Your task to perform on an android device: open the mobile data screen to see how much data has been used Image 0: 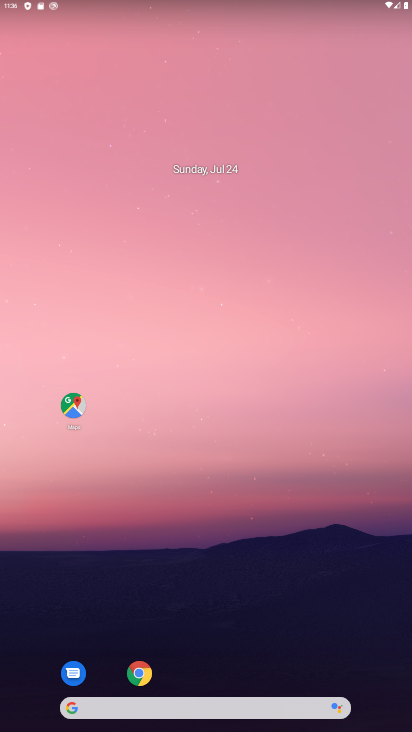
Step 0: drag from (247, 729) to (189, 3)
Your task to perform on an android device: open the mobile data screen to see how much data has been used Image 1: 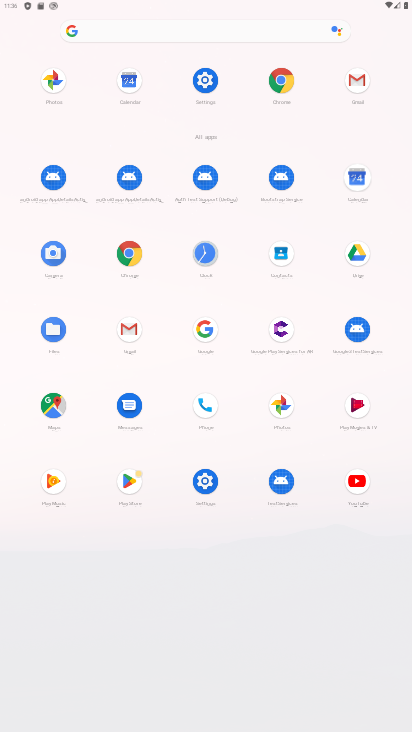
Step 1: click (207, 81)
Your task to perform on an android device: open the mobile data screen to see how much data has been used Image 2: 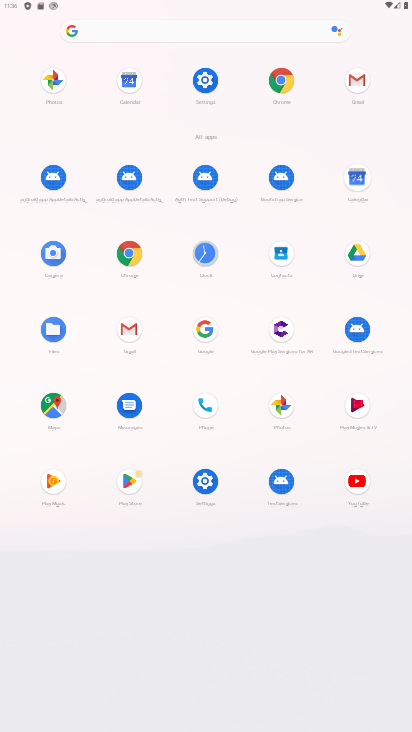
Step 2: click (207, 81)
Your task to perform on an android device: open the mobile data screen to see how much data has been used Image 3: 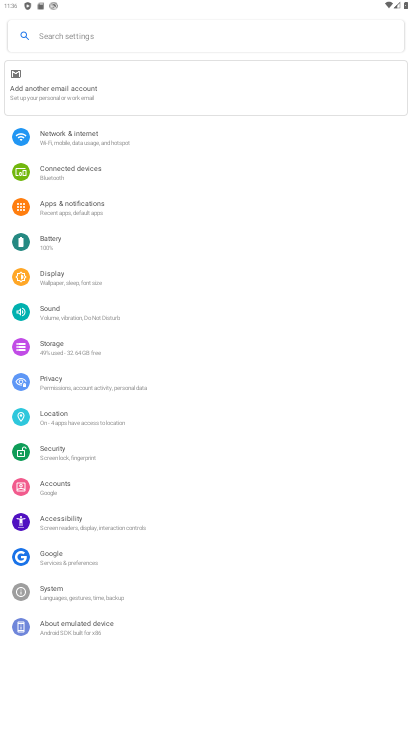
Step 3: click (159, 137)
Your task to perform on an android device: open the mobile data screen to see how much data has been used Image 4: 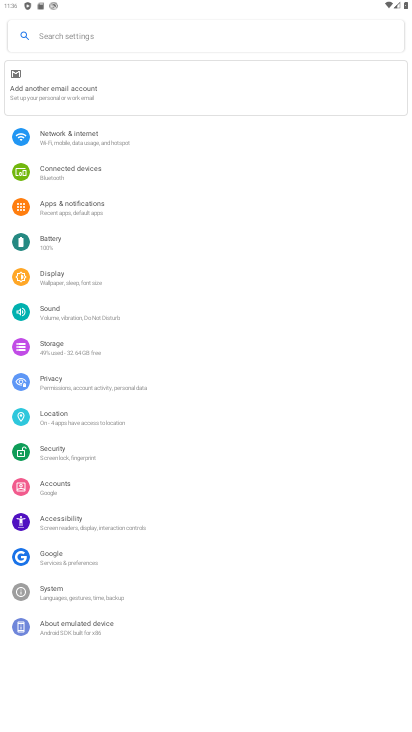
Step 4: click (159, 137)
Your task to perform on an android device: open the mobile data screen to see how much data has been used Image 5: 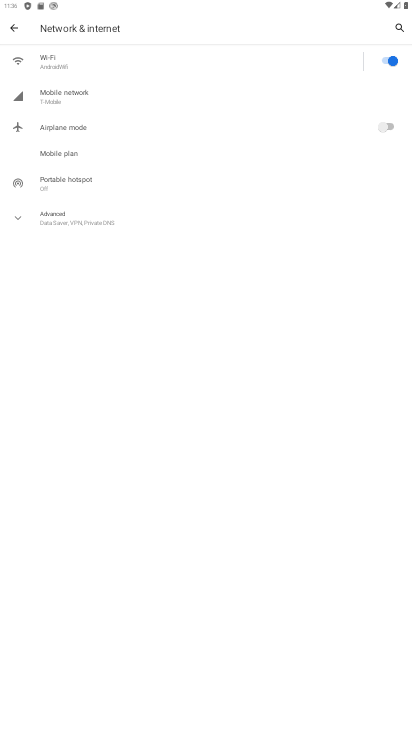
Step 5: click (90, 95)
Your task to perform on an android device: open the mobile data screen to see how much data has been used Image 6: 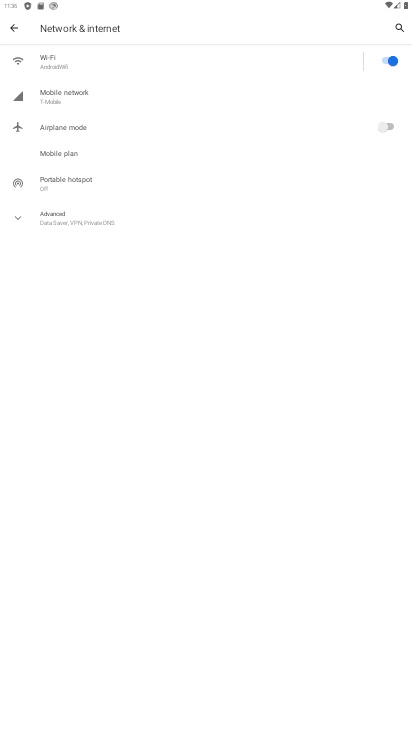
Step 6: click (90, 95)
Your task to perform on an android device: open the mobile data screen to see how much data has been used Image 7: 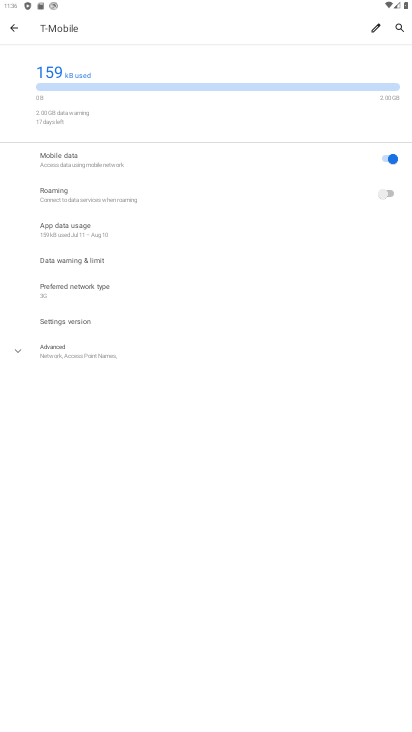
Step 7: click (175, 155)
Your task to perform on an android device: open the mobile data screen to see how much data has been used Image 8: 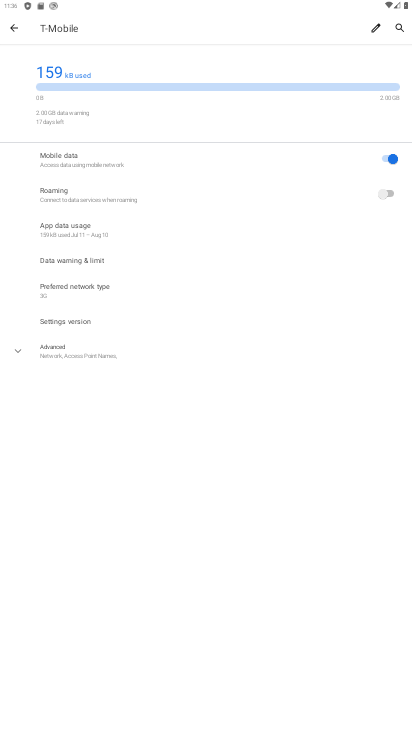
Step 8: click (175, 155)
Your task to perform on an android device: open the mobile data screen to see how much data has been used Image 9: 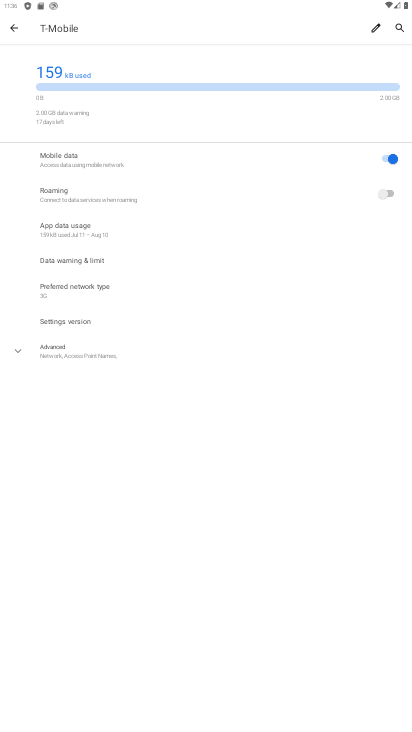
Step 9: click (132, 227)
Your task to perform on an android device: open the mobile data screen to see how much data has been used Image 10: 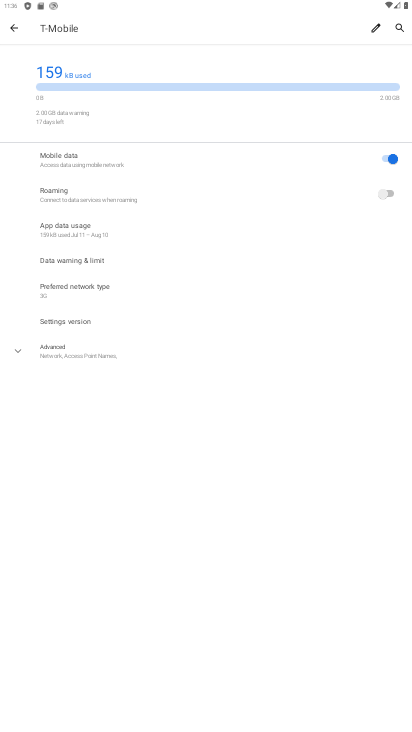
Step 10: click (132, 227)
Your task to perform on an android device: open the mobile data screen to see how much data has been used Image 11: 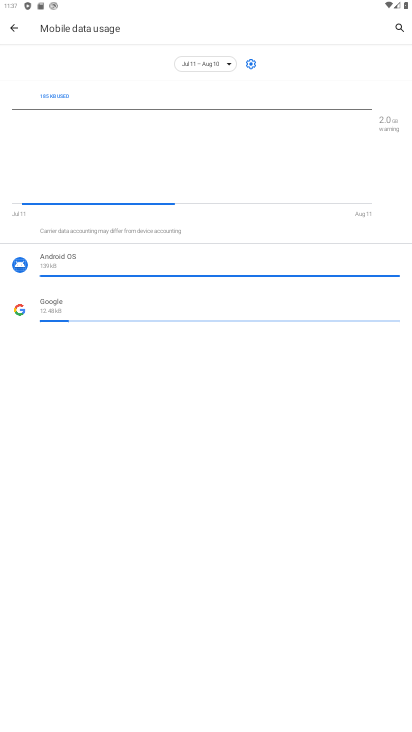
Step 11: task complete